Your task to perform on an android device: Open the stopwatch Image 0: 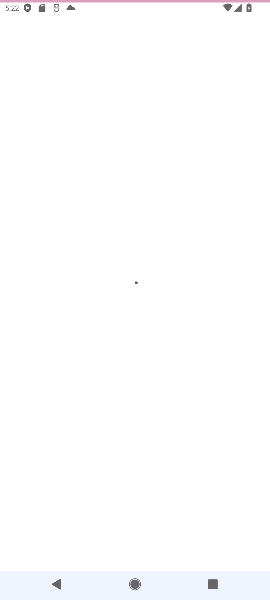
Step 0: press home button
Your task to perform on an android device: Open the stopwatch Image 1: 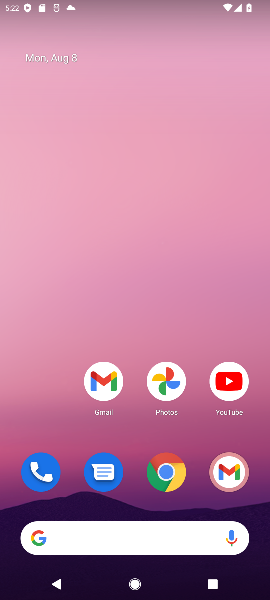
Step 1: drag from (58, 441) to (92, 141)
Your task to perform on an android device: Open the stopwatch Image 2: 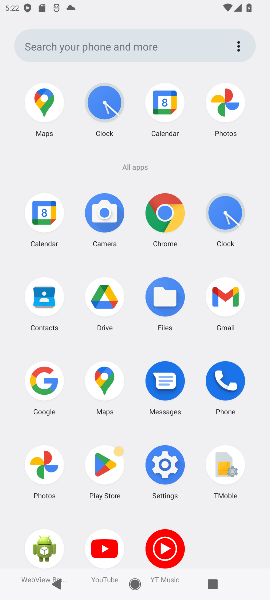
Step 2: click (228, 224)
Your task to perform on an android device: Open the stopwatch Image 3: 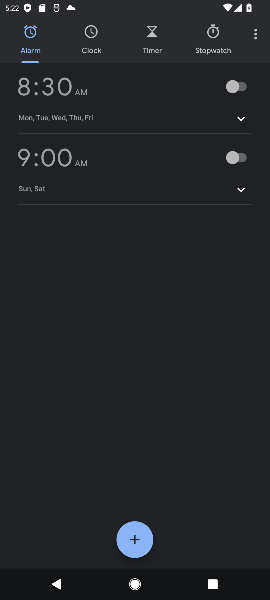
Step 3: click (213, 40)
Your task to perform on an android device: Open the stopwatch Image 4: 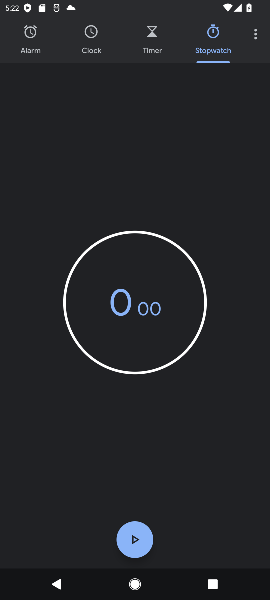
Step 4: task complete